Your task to perform on an android device: Open calendar and show me the third week of next month Image 0: 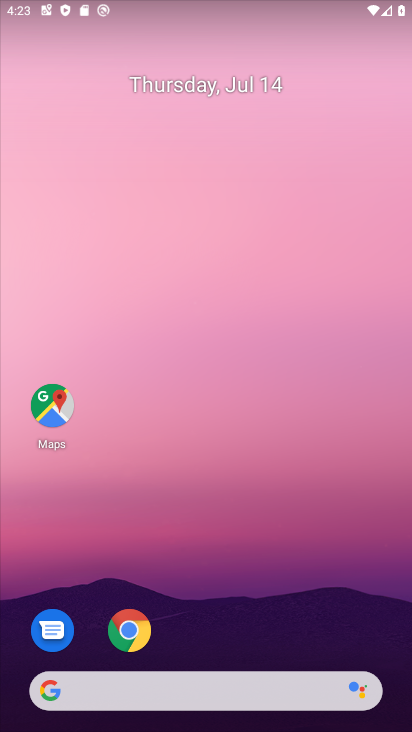
Step 0: drag from (277, 708) to (385, 49)
Your task to perform on an android device: Open calendar and show me the third week of next month Image 1: 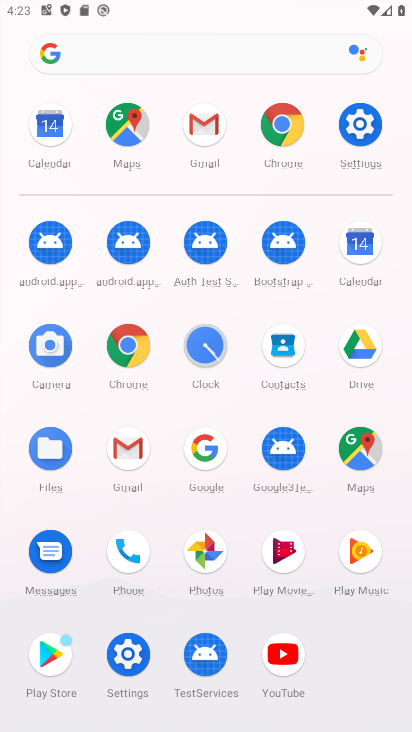
Step 1: click (344, 254)
Your task to perform on an android device: Open calendar and show me the third week of next month Image 2: 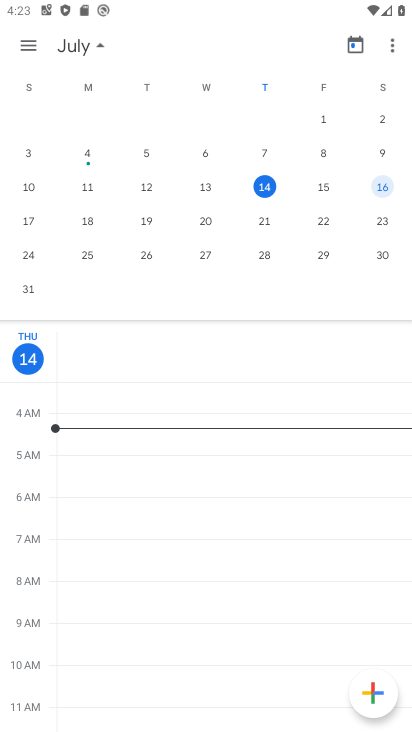
Step 2: drag from (331, 226) to (94, 213)
Your task to perform on an android device: Open calendar and show me the third week of next month Image 3: 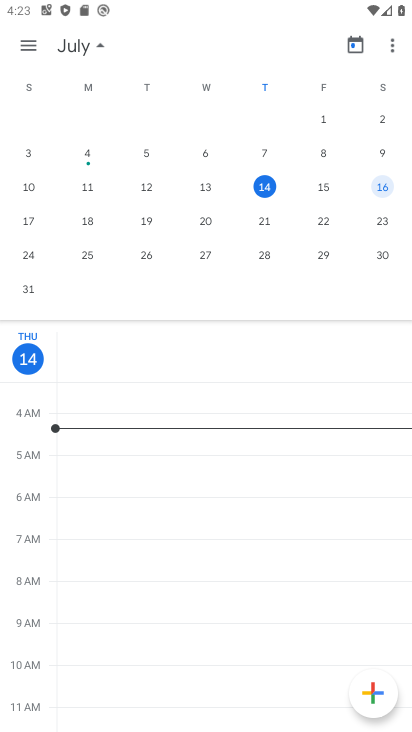
Step 3: drag from (324, 170) to (0, 180)
Your task to perform on an android device: Open calendar and show me the third week of next month Image 4: 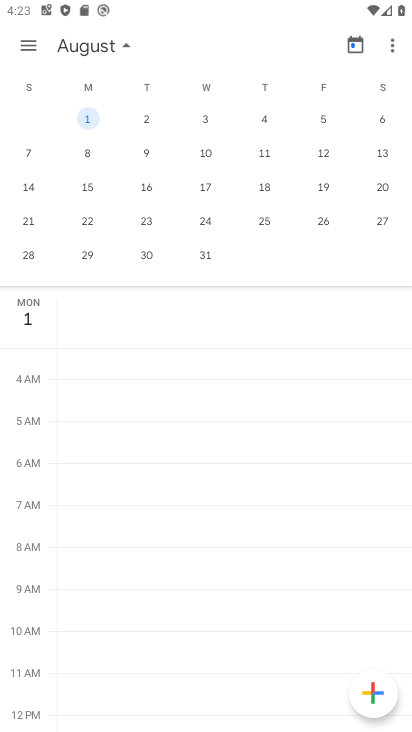
Step 4: click (204, 191)
Your task to perform on an android device: Open calendar and show me the third week of next month Image 5: 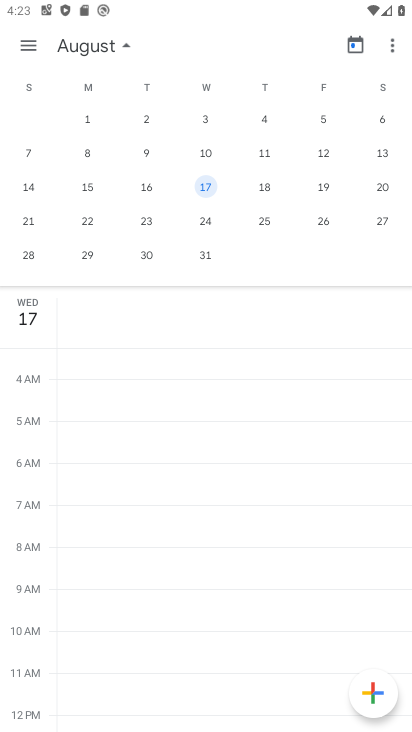
Step 5: click (30, 49)
Your task to perform on an android device: Open calendar and show me the third week of next month Image 6: 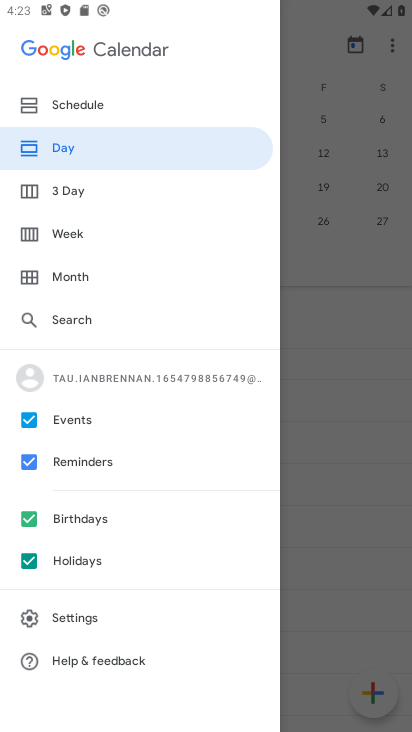
Step 6: click (77, 230)
Your task to perform on an android device: Open calendar and show me the third week of next month Image 7: 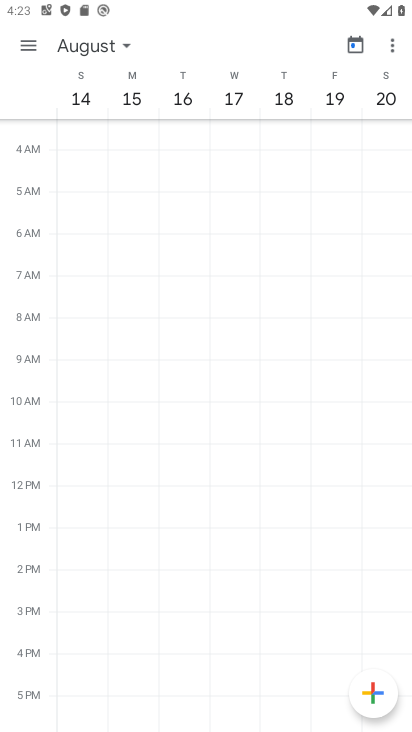
Step 7: task complete